Your task to perform on an android device: star an email in the gmail app Image 0: 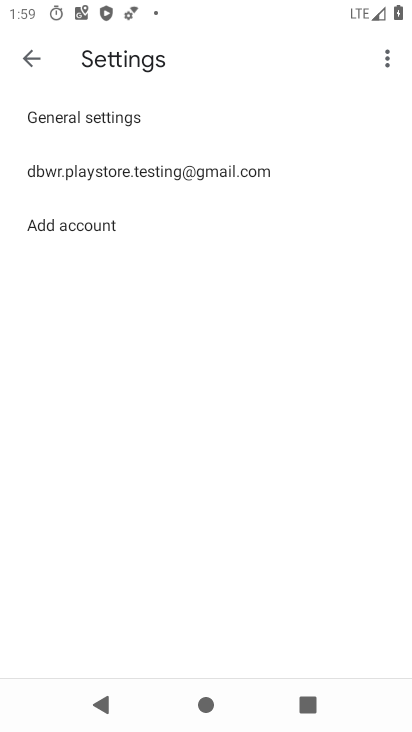
Step 0: press home button
Your task to perform on an android device: star an email in the gmail app Image 1: 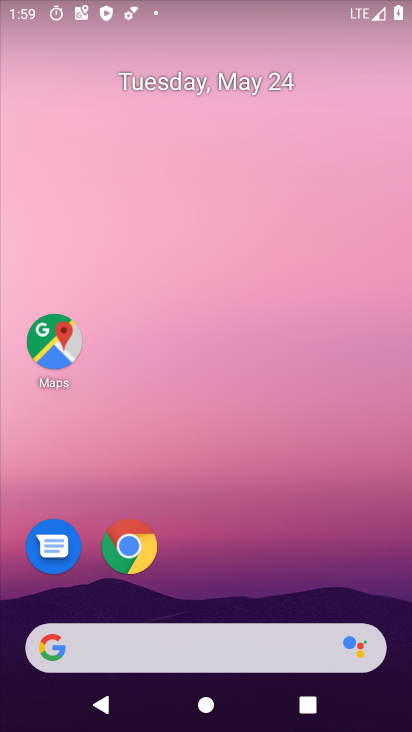
Step 1: drag from (208, 633) to (209, 166)
Your task to perform on an android device: star an email in the gmail app Image 2: 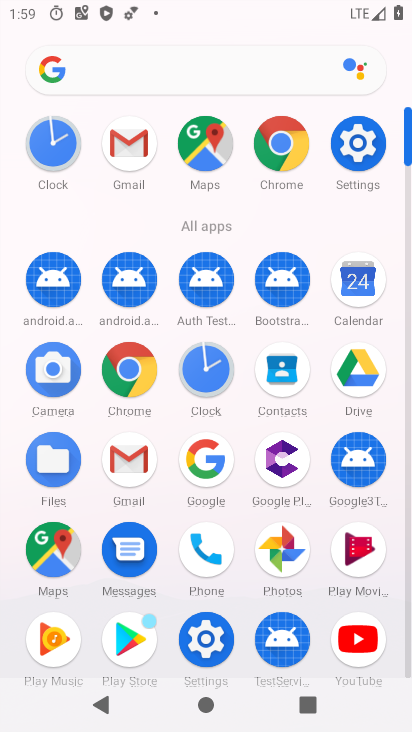
Step 2: click (140, 463)
Your task to perform on an android device: star an email in the gmail app Image 3: 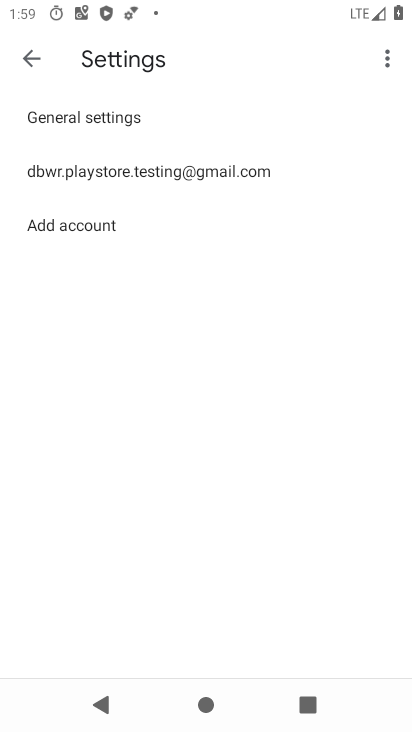
Step 3: click (32, 61)
Your task to perform on an android device: star an email in the gmail app Image 4: 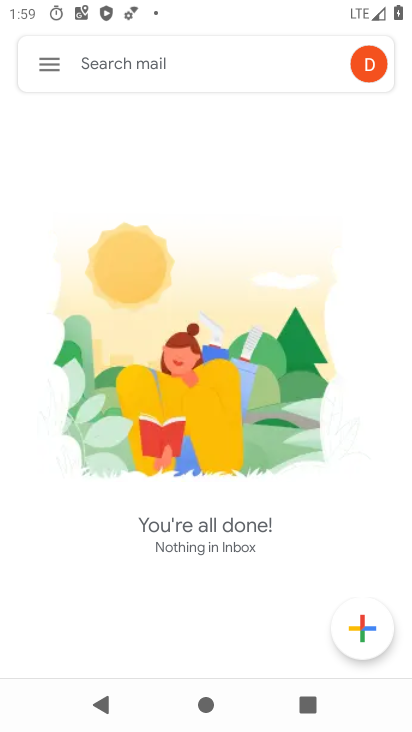
Step 4: click (38, 70)
Your task to perform on an android device: star an email in the gmail app Image 5: 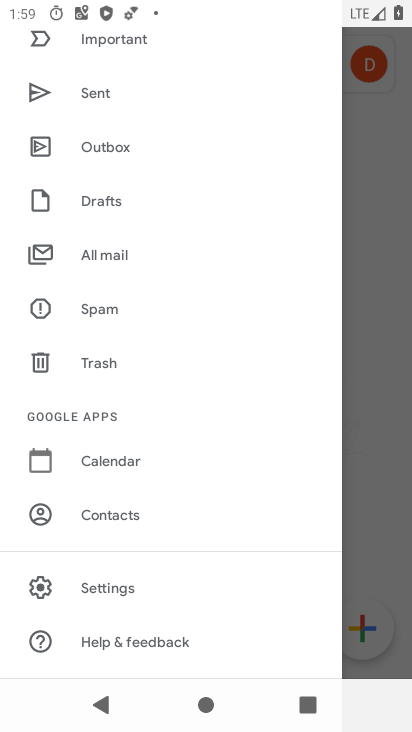
Step 5: click (75, 267)
Your task to perform on an android device: star an email in the gmail app Image 6: 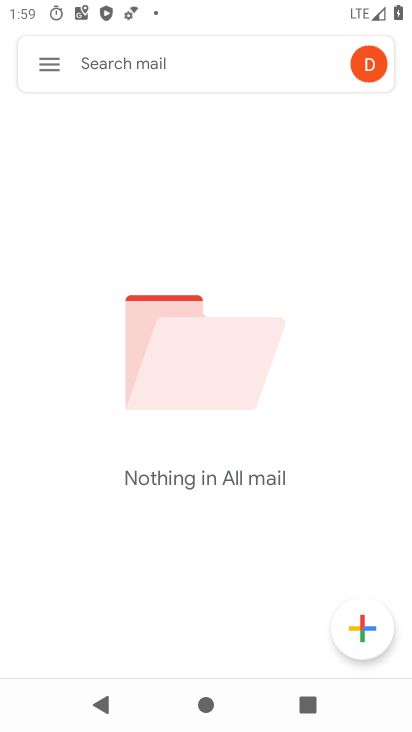
Step 6: task complete